Your task to perform on an android device: open a new tab in the chrome app Image 0: 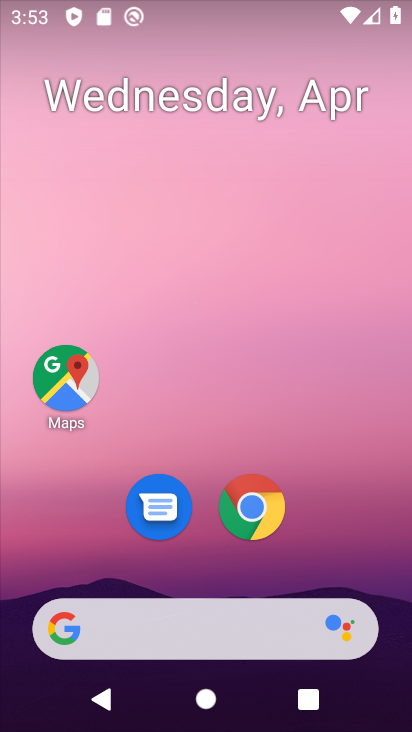
Step 0: click (256, 516)
Your task to perform on an android device: open a new tab in the chrome app Image 1: 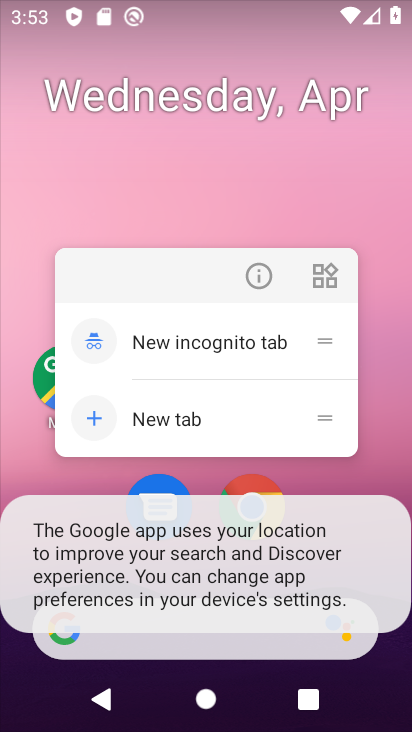
Step 1: click (258, 500)
Your task to perform on an android device: open a new tab in the chrome app Image 2: 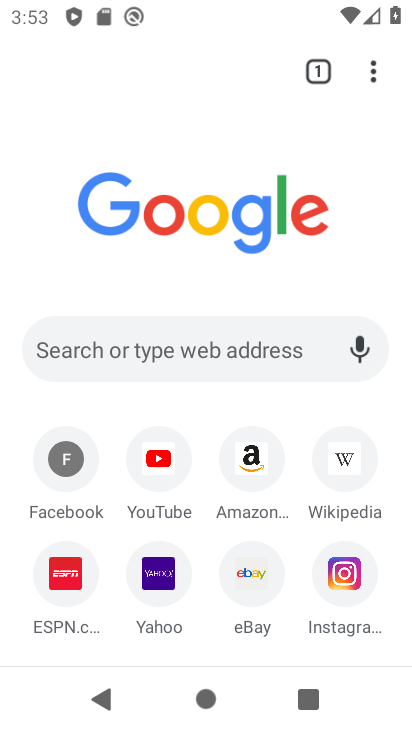
Step 2: task complete